Your task to perform on an android device: Open calendar and show me the first week of next month Image 0: 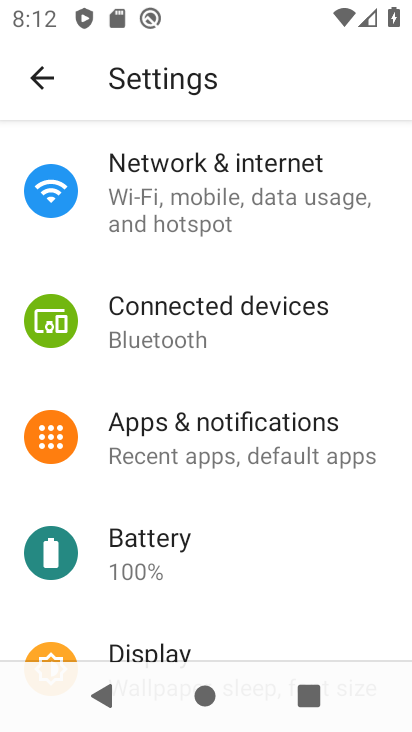
Step 0: press home button
Your task to perform on an android device: Open calendar and show me the first week of next month Image 1: 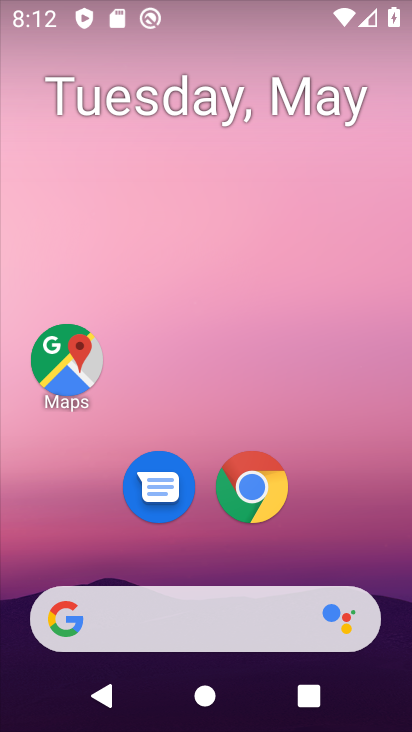
Step 1: drag from (192, 565) to (252, 147)
Your task to perform on an android device: Open calendar and show me the first week of next month Image 2: 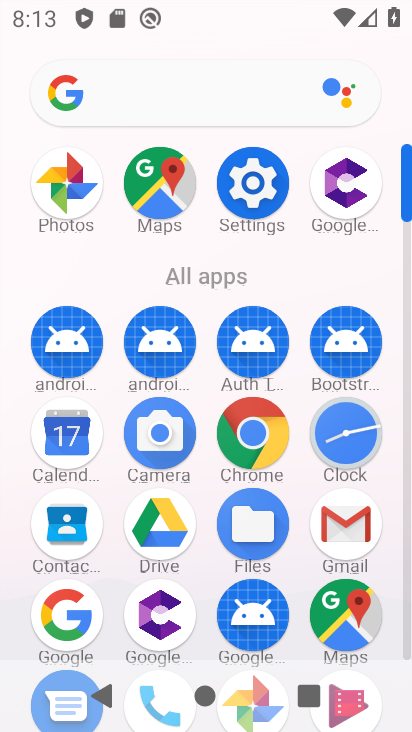
Step 2: click (55, 427)
Your task to perform on an android device: Open calendar and show me the first week of next month Image 3: 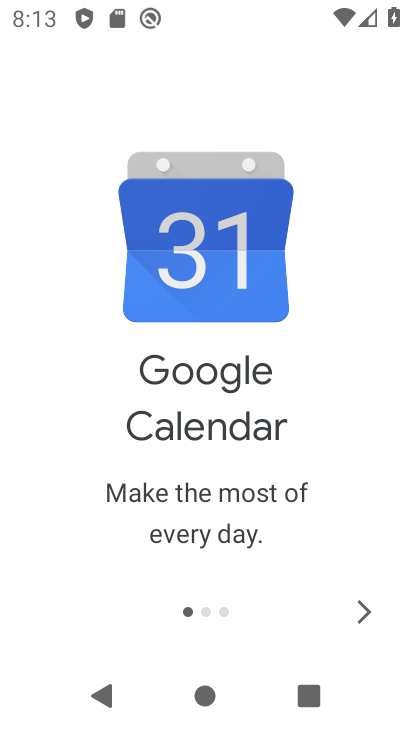
Step 3: click (361, 598)
Your task to perform on an android device: Open calendar and show me the first week of next month Image 4: 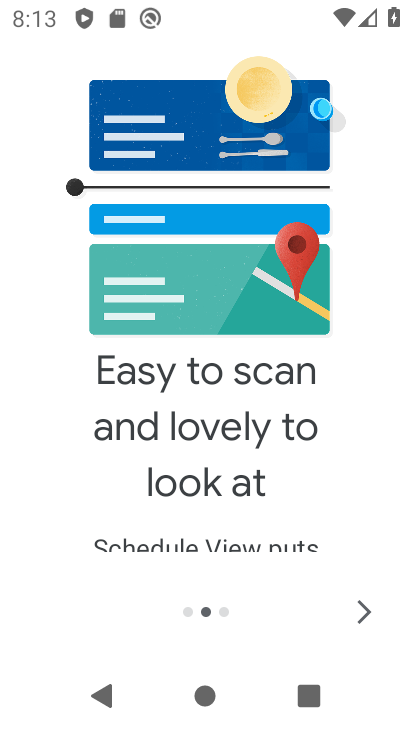
Step 4: click (357, 604)
Your task to perform on an android device: Open calendar and show me the first week of next month Image 5: 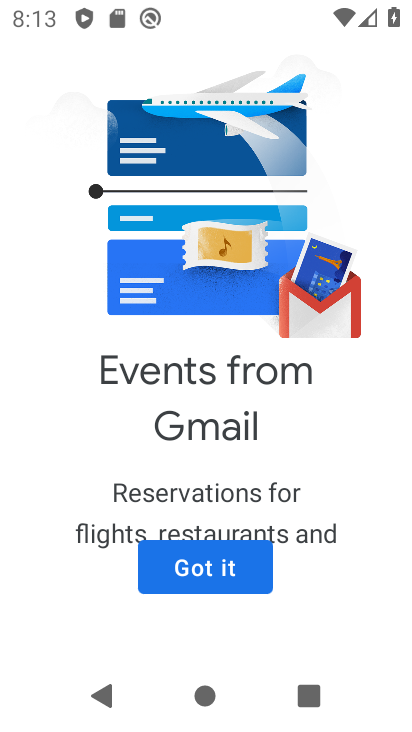
Step 5: click (194, 577)
Your task to perform on an android device: Open calendar and show me the first week of next month Image 6: 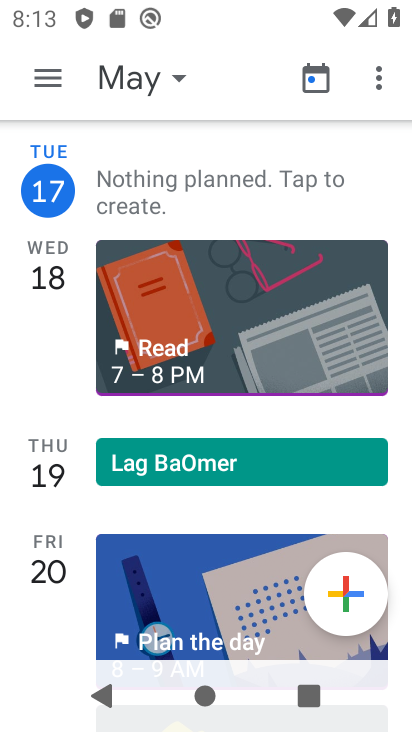
Step 6: click (48, 81)
Your task to perform on an android device: Open calendar and show me the first week of next month Image 7: 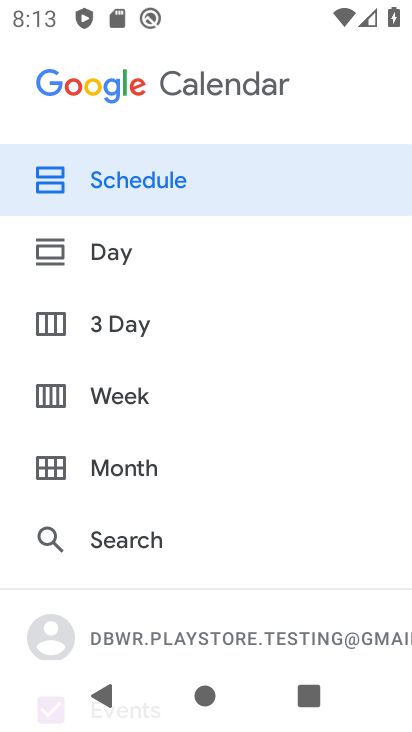
Step 7: click (95, 392)
Your task to perform on an android device: Open calendar and show me the first week of next month Image 8: 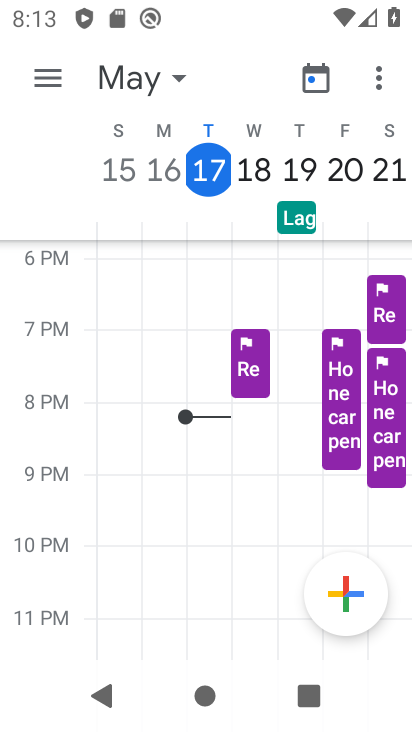
Step 8: drag from (383, 164) to (127, 145)
Your task to perform on an android device: Open calendar and show me the first week of next month Image 9: 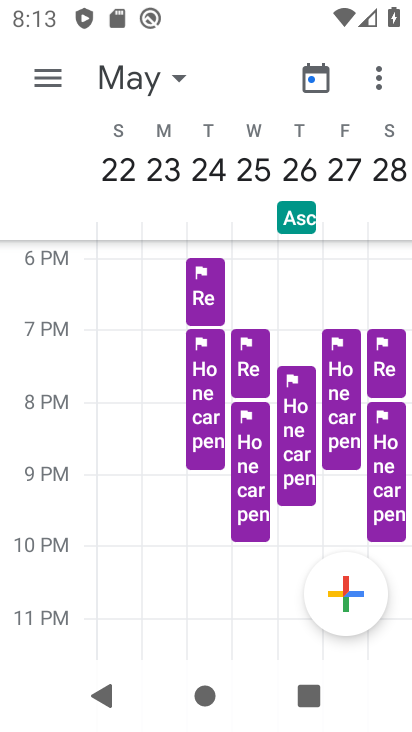
Step 9: drag from (377, 159) to (93, 154)
Your task to perform on an android device: Open calendar and show me the first week of next month Image 10: 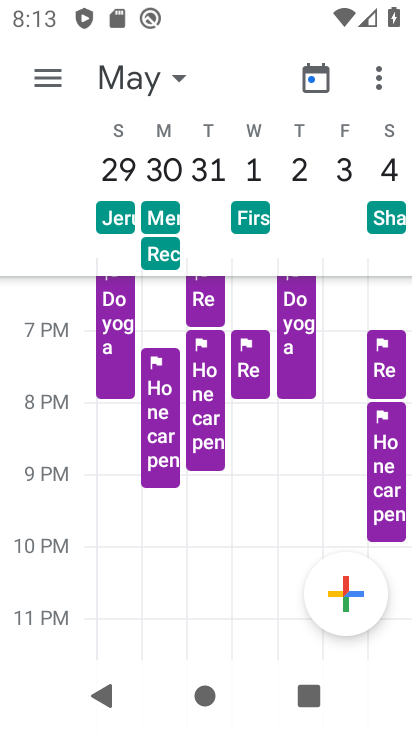
Step 10: click (252, 161)
Your task to perform on an android device: Open calendar and show me the first week of next month Image 11: 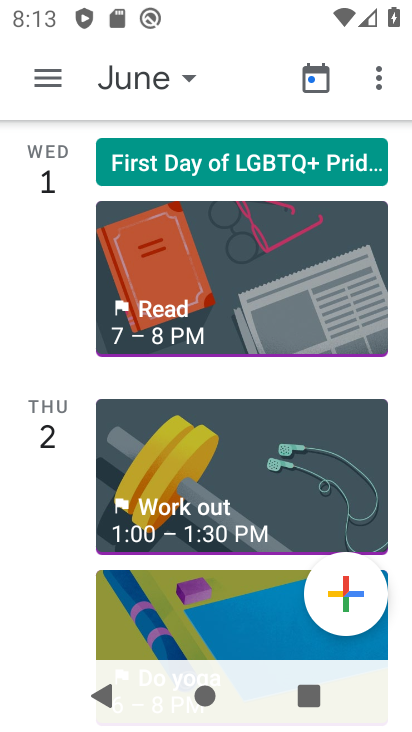
Step 11: task complete